Your task to perform on an android device: uninstall "PUBG MOBILE" Image 0: 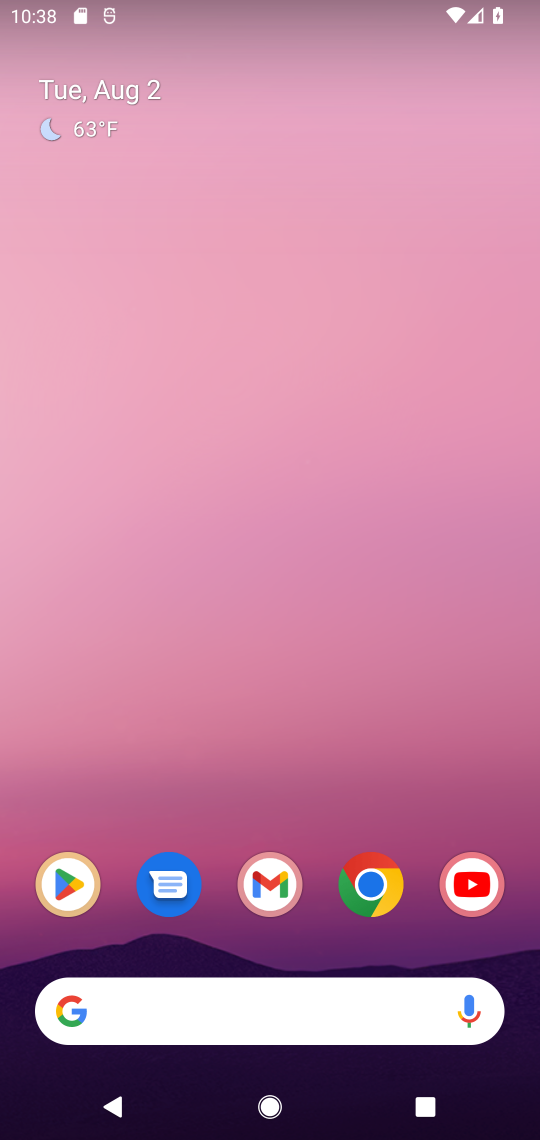
Step 0: click (80, 891)
Your task to perform on an android device: uninstall "PUBG MOBILE" Image 1: 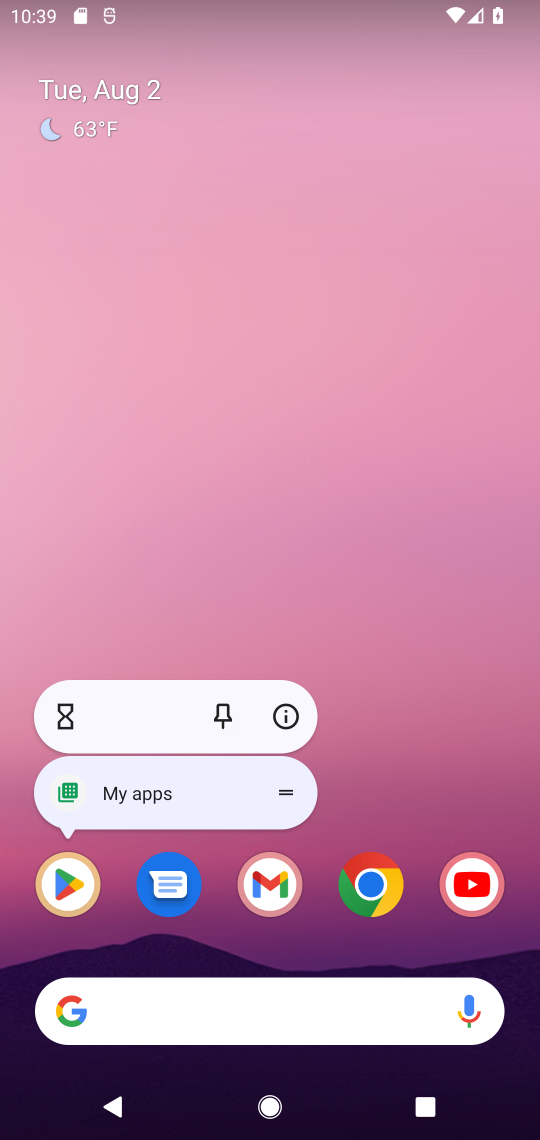
Step 1: click (82, 891)
Your task to perform on an android device: uninstall "PUBG MOBILE" Image 2: 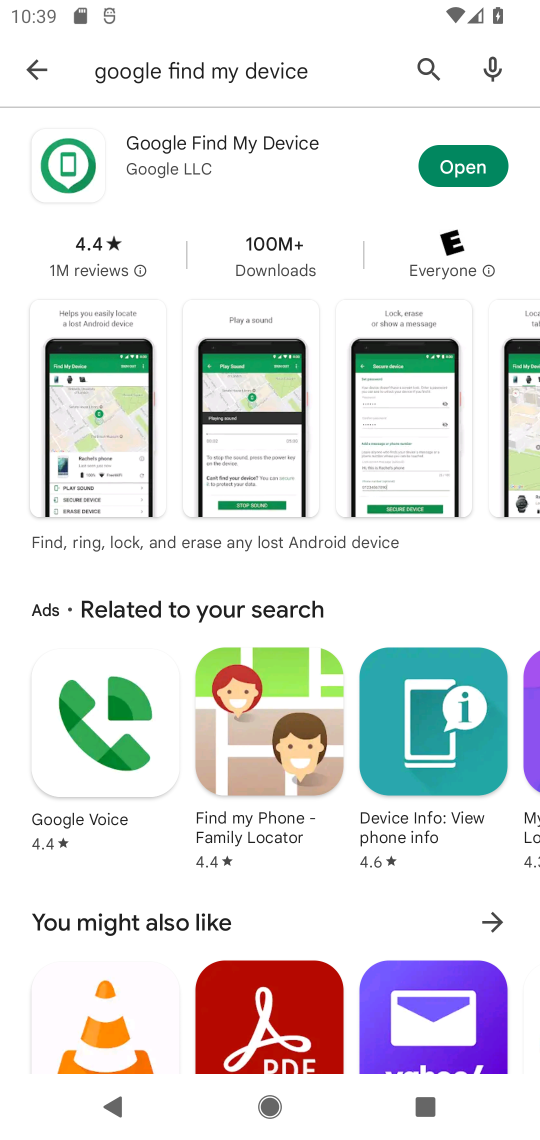
Step 2: click (259, 58)
Your task to perform on an android device: uninstall "PUBG MOBILE" Image 3: 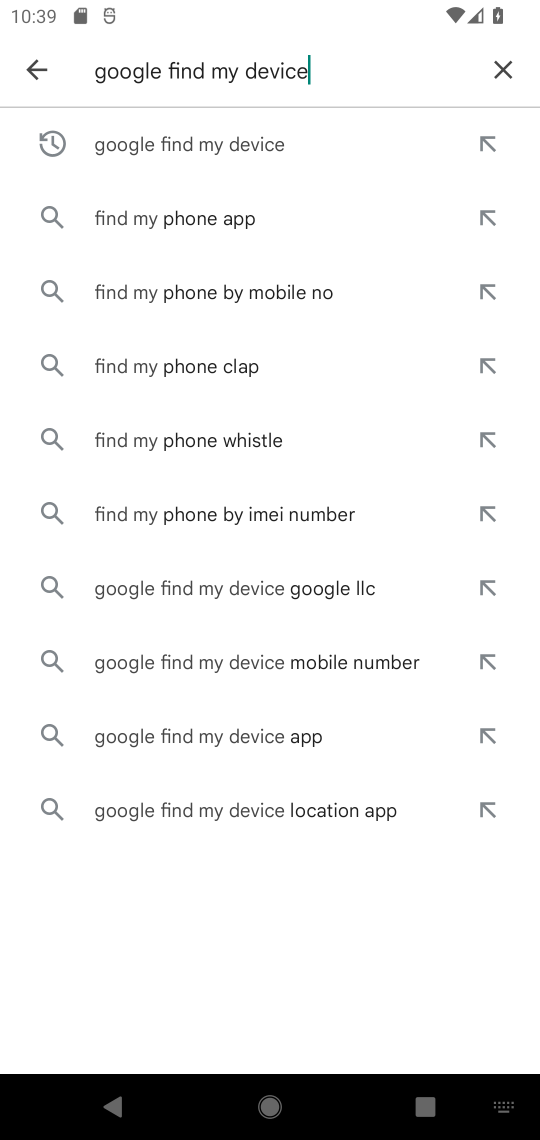
Step 3: click (501, 57)
Your task to perform on an android device: uninstall "PUBG MOBILE" Image 4: 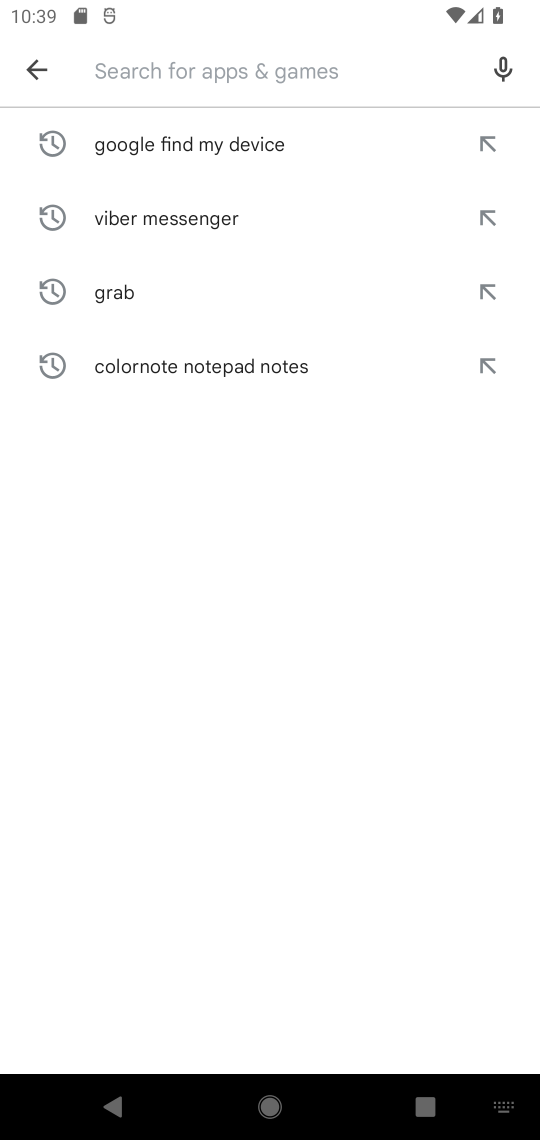
Step 4: type "Pubg "
Your task to perform on an android device: uninstall "PUBG MOBILE" Image 5: 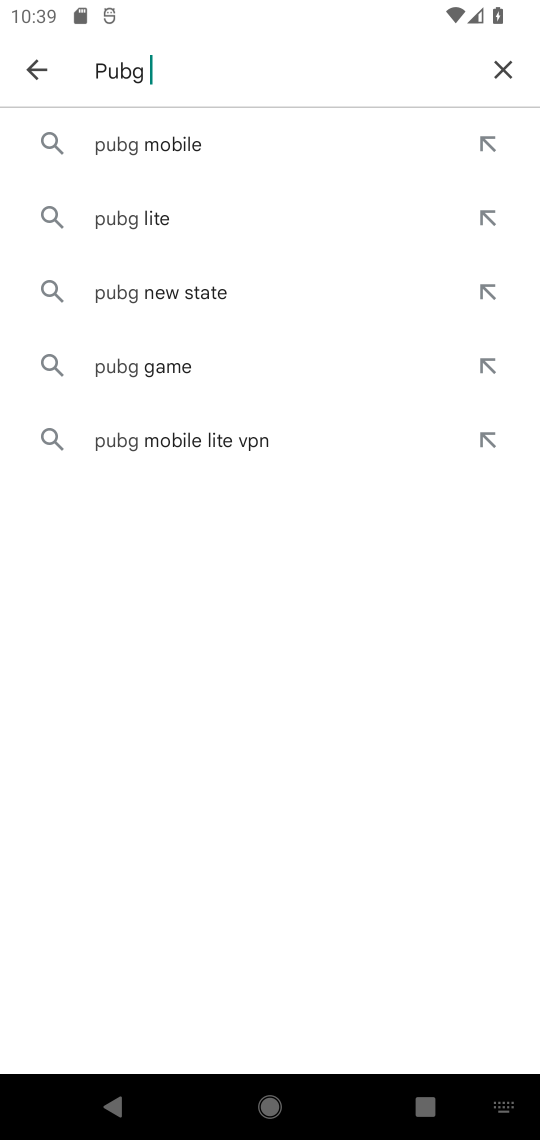
Step 5: click (175, 146)
Your task to perform on an android device: uninstall "PUBG MOBILE" Image 6: 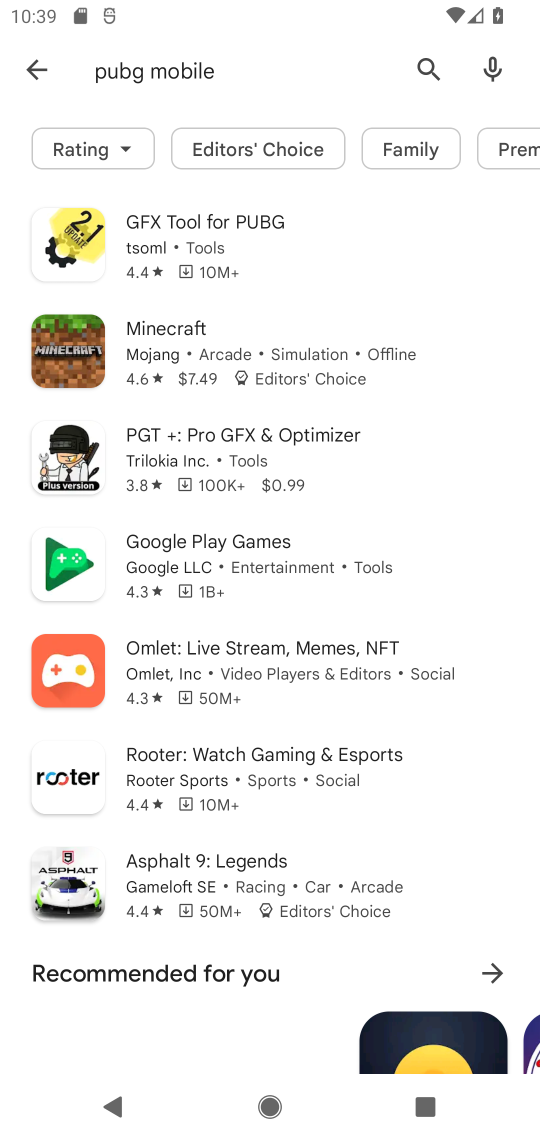
Step 6: task complete